Your task to perform on an android device: delete browsing data in the chrome app Image 0: 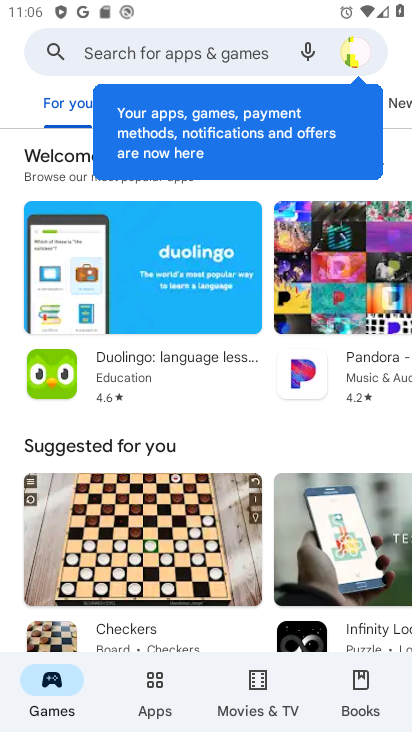
Step 0: press home button
Your task to perform on an android device: delete browsing data in the chrome app Image 1: 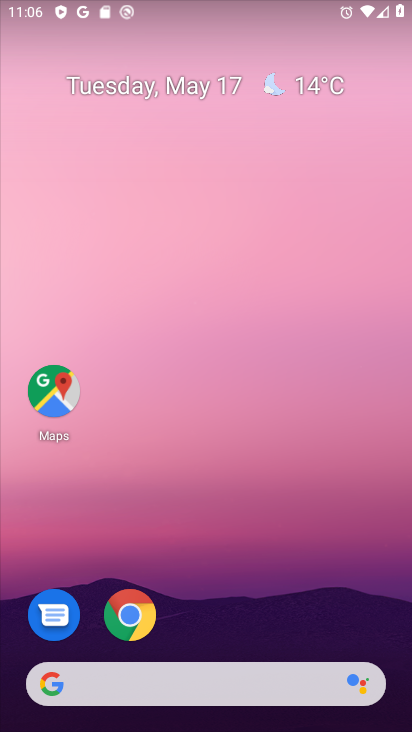
Step 1: click (138, 607)
Your task to perform on an android device: delete browsing data in the chrome app Image 2: 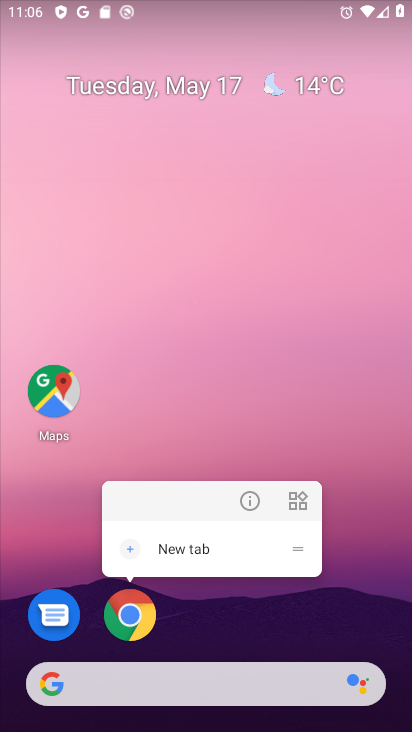
Step 2: click (132, 613)
Your task to perform on an android device: delete browsing data in the chrome app Image 3: 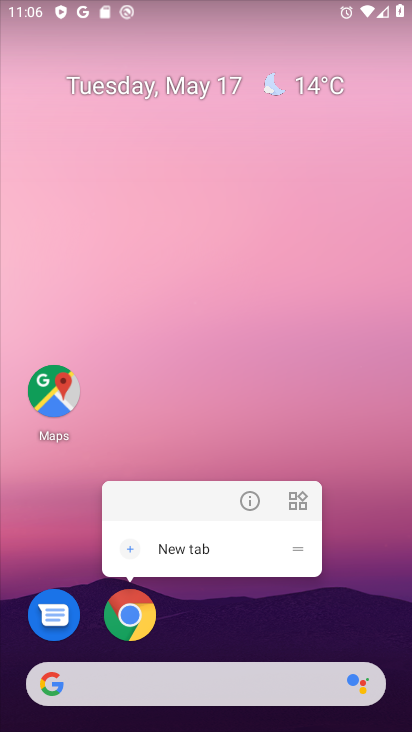
Step 3: click (132, 613)
Your task to perform on an android device: delete browsing data in the chrome app Image 4: 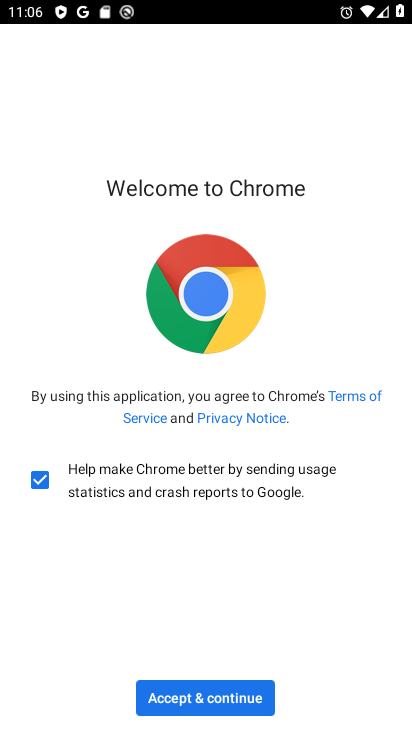
Step 4: click (221, 698)
Your task to perform on an android device: delete browsing data in the chrome app Image 5: 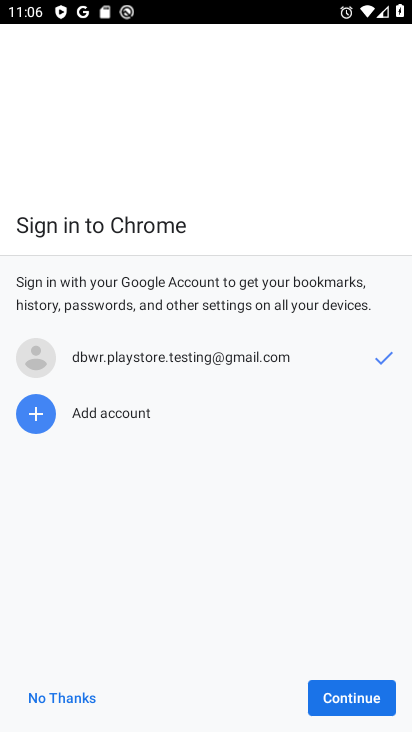
Step 5: click (365, 699)
Your task to perform on an android device: delete browsing data in the chrome app Image 6: 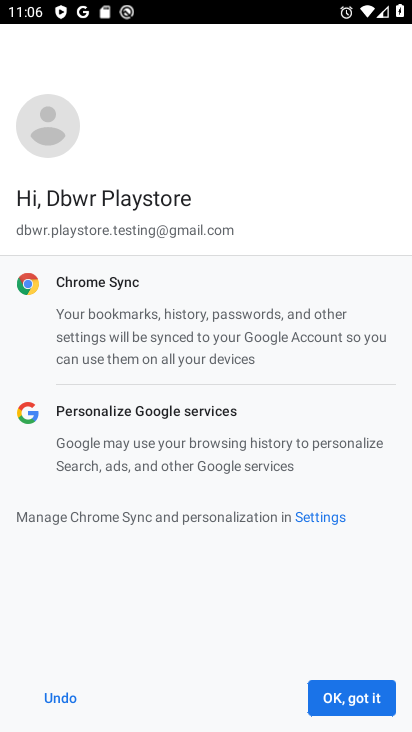
Step 6: click (362, 698)
Your task to perform on an android device: delete browsing data in the chrome app Image 7: 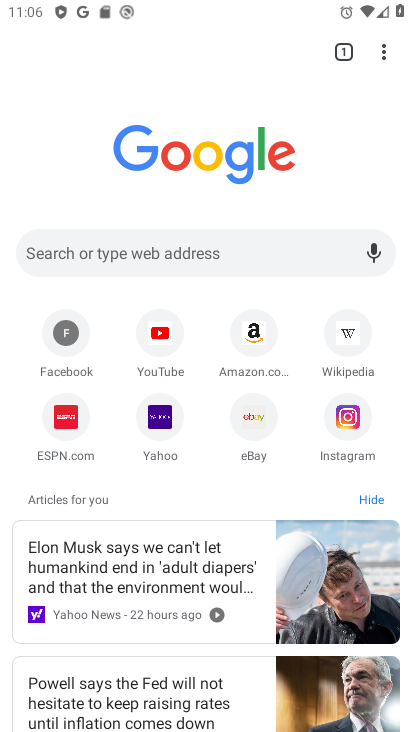
Step 7: task complete